Your task to perform on an android device: add a contact in the contacts app Image 0: 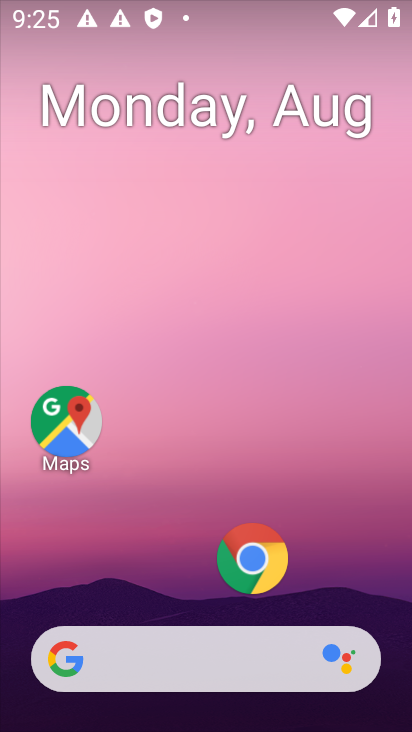
Step 0: drag from (176, 564) to (178, 26)
Your task to perform on an android device: add a contact in the contacts app Image 1: 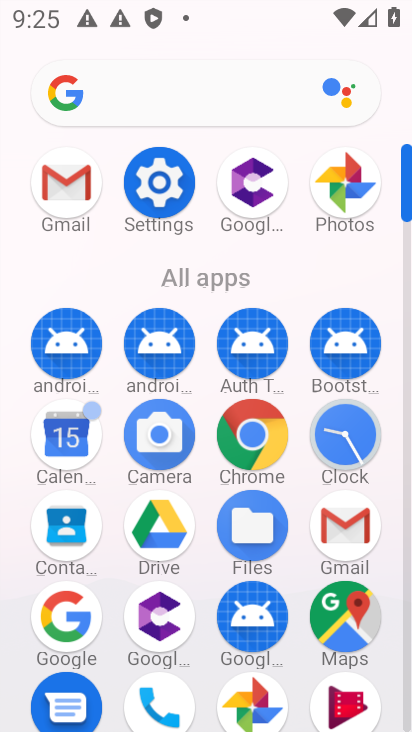
Step 1: click (66, 518)
Your task to perform on an android device: add a contact in the contacts app Image 2: 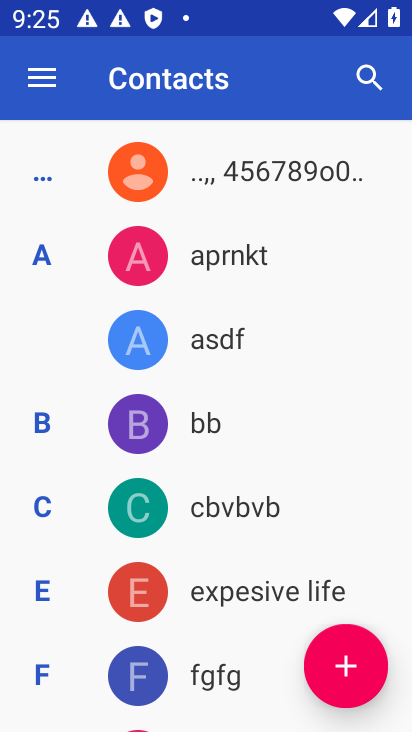
Step 2: click (345, 664)
Your task to perform on an android device: add a contact in the contacts app Image 3: 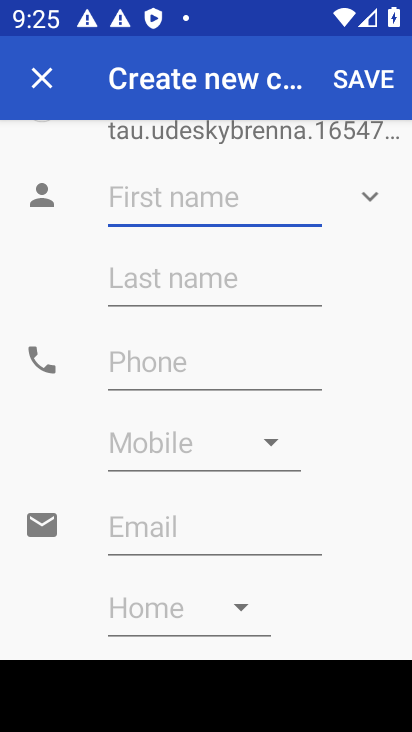
Step 3: type "gctdxfg"
Your task to perform on an android device: add a contact in the contacts app Image 4: 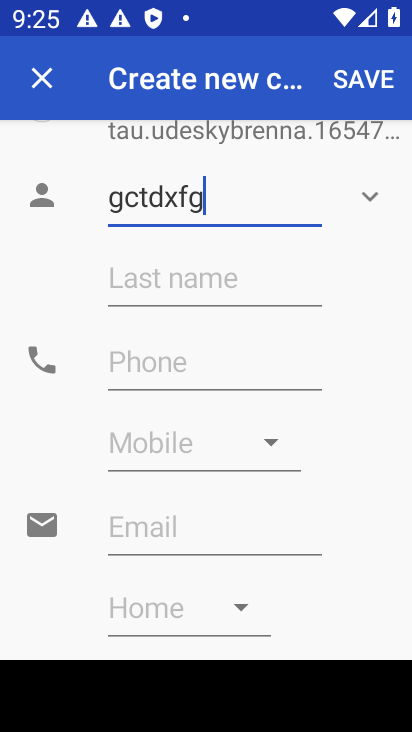
Step 4: click (363, 78)
Your task to perform on an android device: add a contact in the contacts app Image 5: 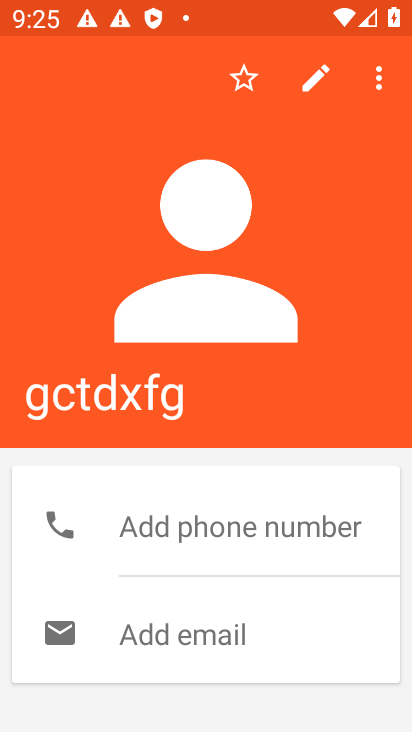
Step 5: task complete